Your task to perform on an android device: set the stopwatch Image 0: 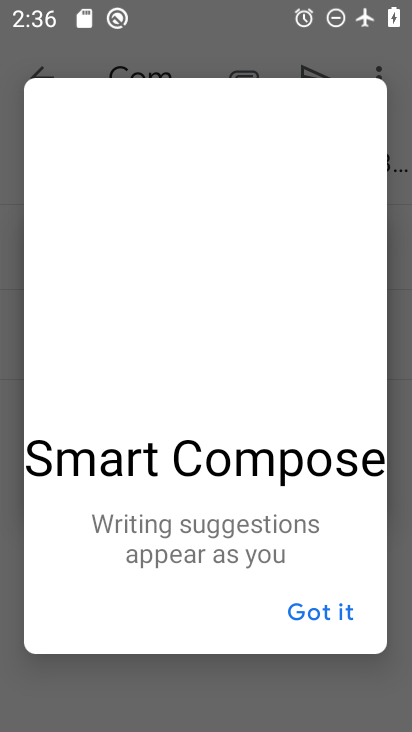
Step 0: press home button
Your task to perform on an android device: set the stopwatch Image 1: 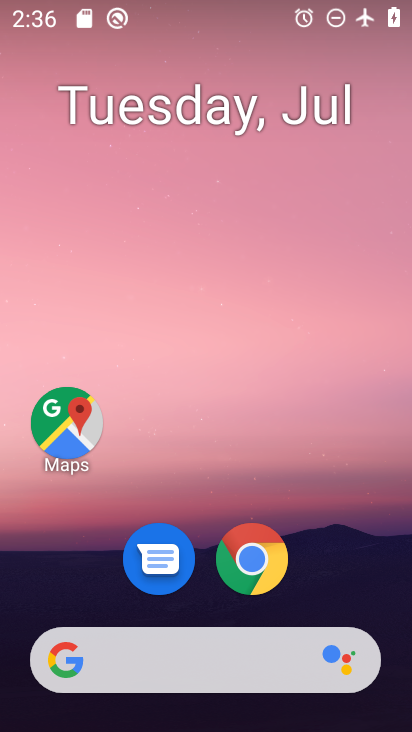
Step 1: drag from (359, 573) to (346, 63)
Your task to perform on an android device: set the stopwatch Image 2: 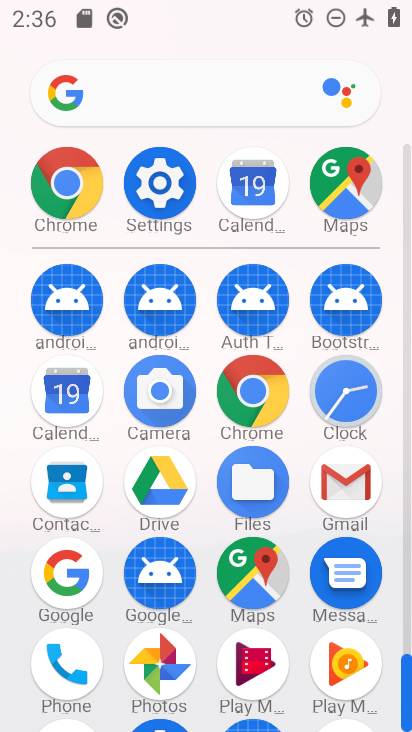
Step 2: click (356, 386)
Your task to perform on an android device: set the stopwatch Image 3: 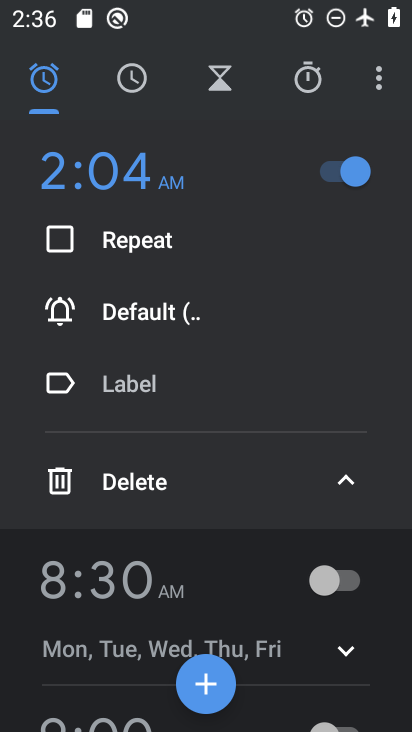
Step 3: click (309, 82)
Your task to perform on an android device: set the stopwatch Image 4: 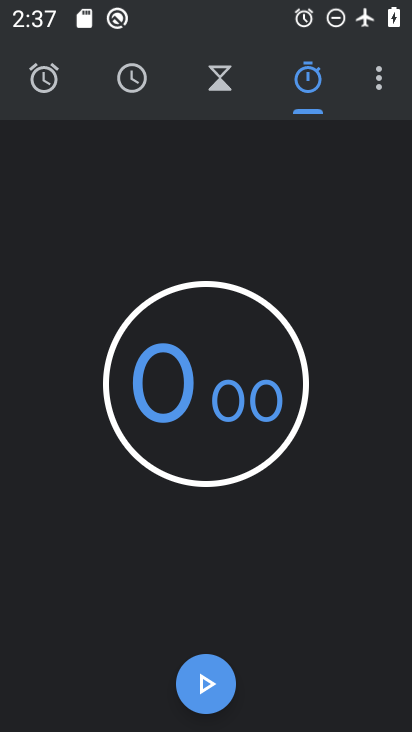
Step 4: click (201, 691)
Your task to perform on an android device: set the stopwatch Image 5: 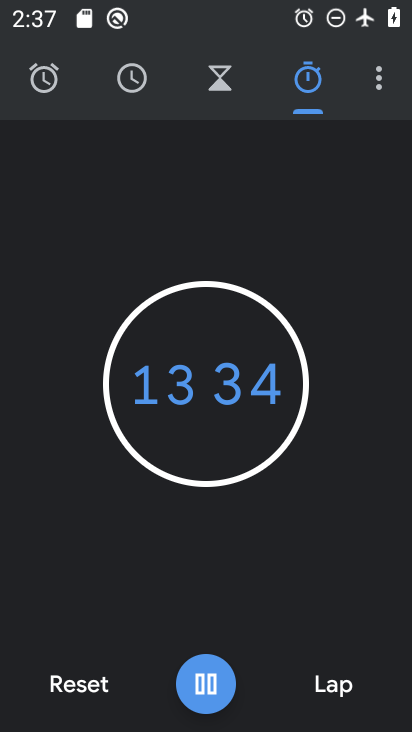
Step 5: task complete